Your task to perform on an android device: turn on priority inbox in the gmail app Image 0: 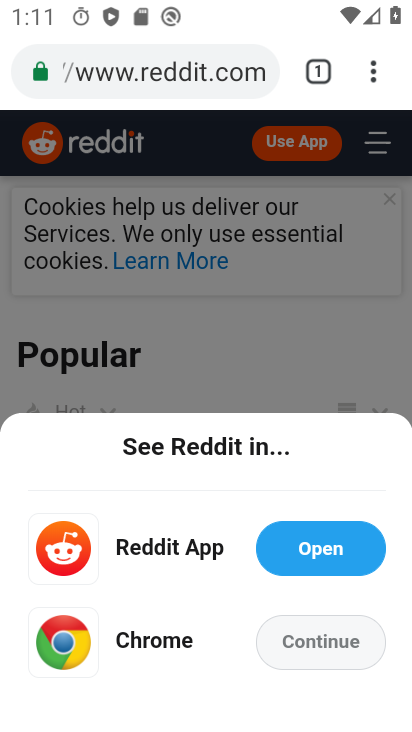
Step 0: press back button
Your task to perform on an android device: turn on priority inbox in the gmail app Image 1: 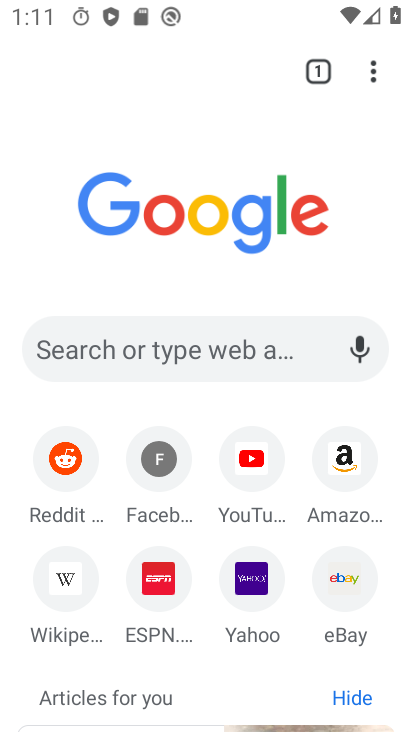
Step 1: press back button
Your task to perform on an android device: turn on priority inbox in the gmail app Image 2: 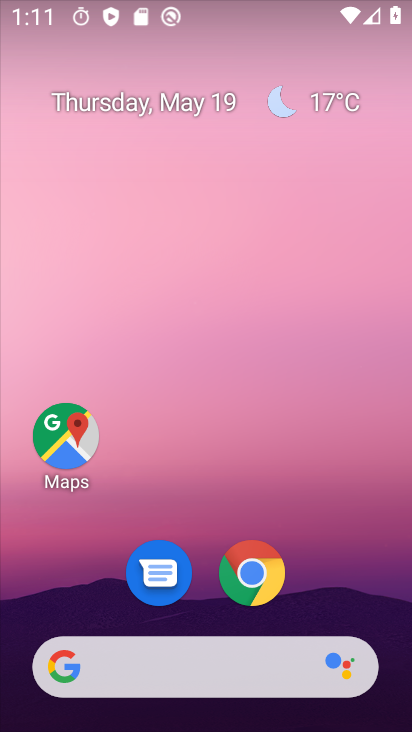
Step 2: drag from (204, 610) to (326, 64)
Your task to perform on an android device: turn on priority inbox in the gmail app Image 3: 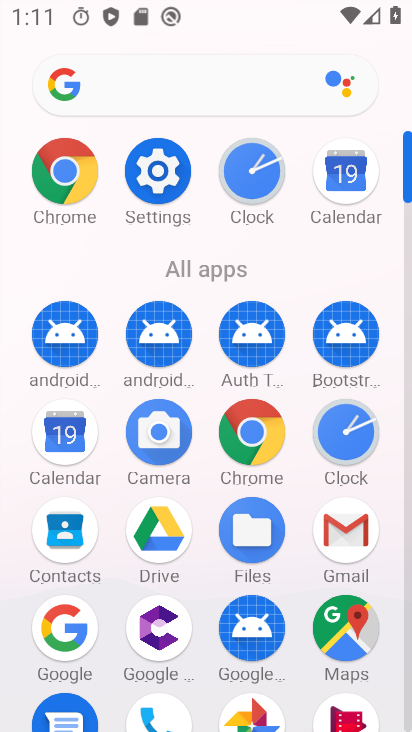
Step 3: click (358, 533)
Your task to perform on an android device: turn on priority inbox in the gmail app Image 4: 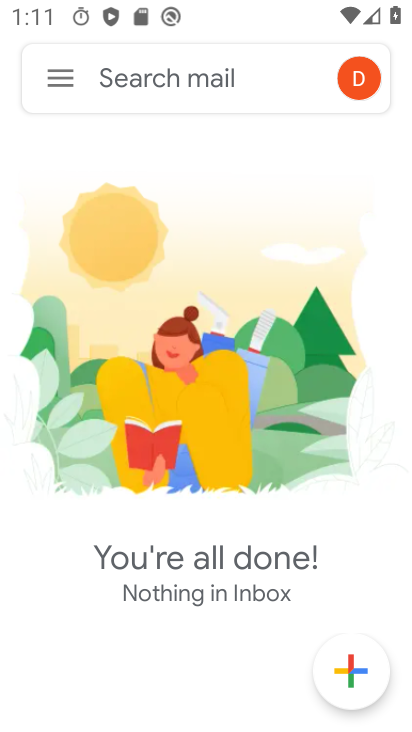
Step 4: click (55, 71)
Your task to perform on an android device: turn on priority inbox in the gmail app Image 5: 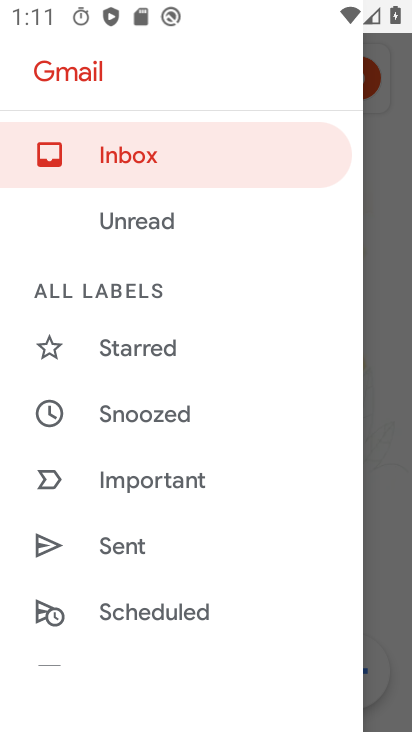
Step 5: drag from (136, 609) to (347, 0)
Your task to perform on an android device: turn on priority inbox in the gmail app Image 6: 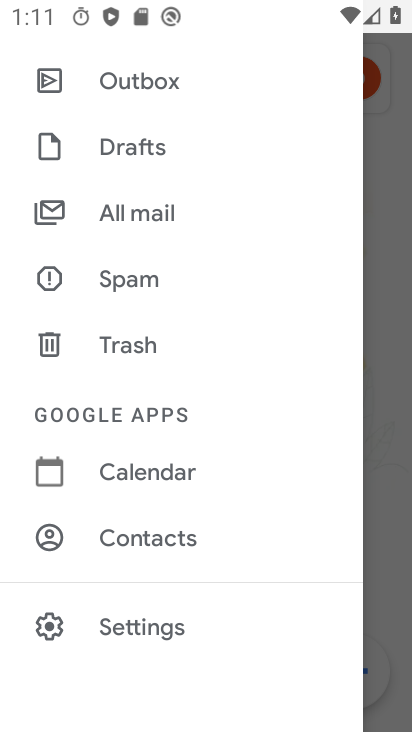
Step 6: click (91, 633)
Your task to perform on an android device: turn on priority inbox in the gmail app Image 7: 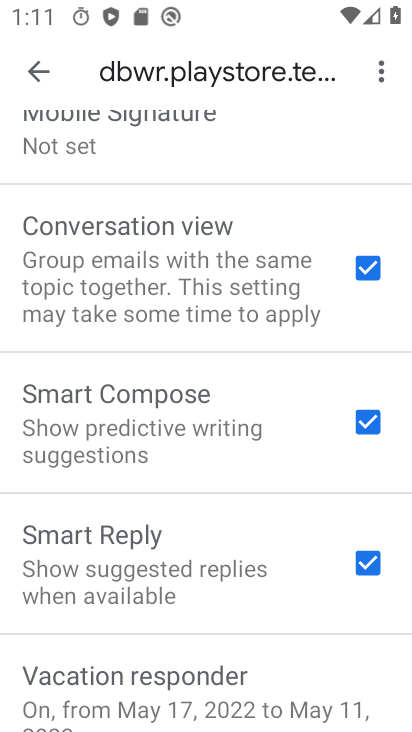
Step 7: drag from (120, 601) to (279, 84)
Your task to perform on an android device: turn on priority inbox in the gmail app Image 8: 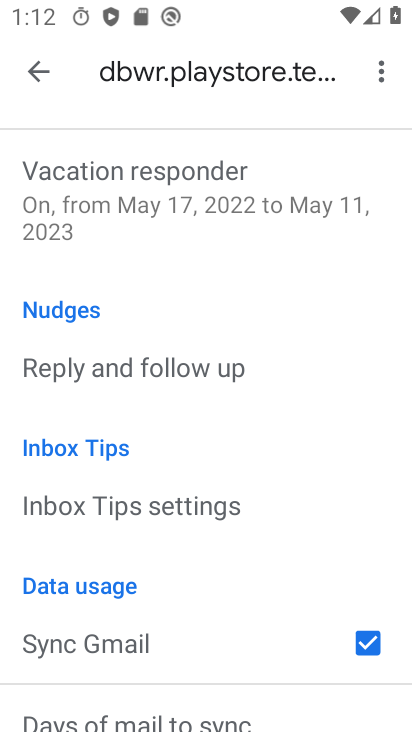
Step 8: drag from (217, 213) to (161, 642)
Your task to perform on an android device: turn on priority inbox in the gmail app Image 9: 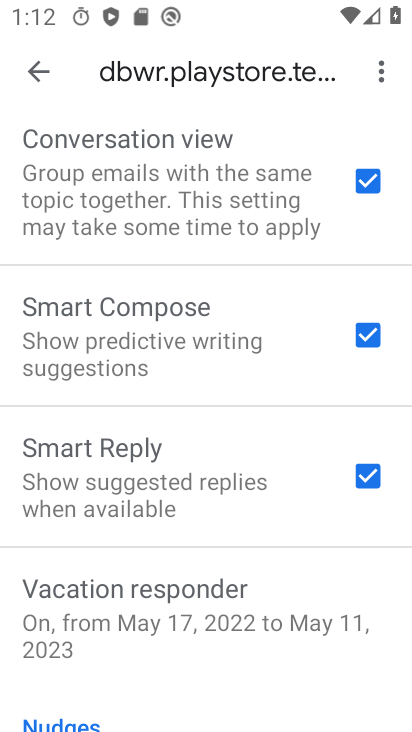
Step 9: drag from (218, 194) to (218, 664)
Your task to perform on an android device: turn on priority inbox in the gmail app Image 10: 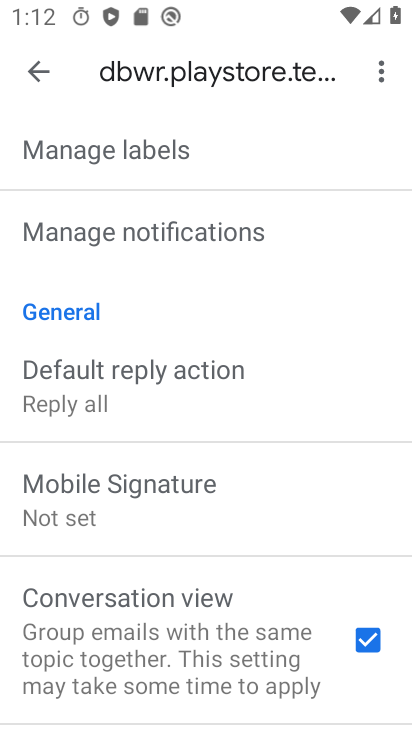
Step 10: drag from (218, 211) to (218, 528)
Your task to perform on an android device: turn on priority inbox in the gmail app Image 11: 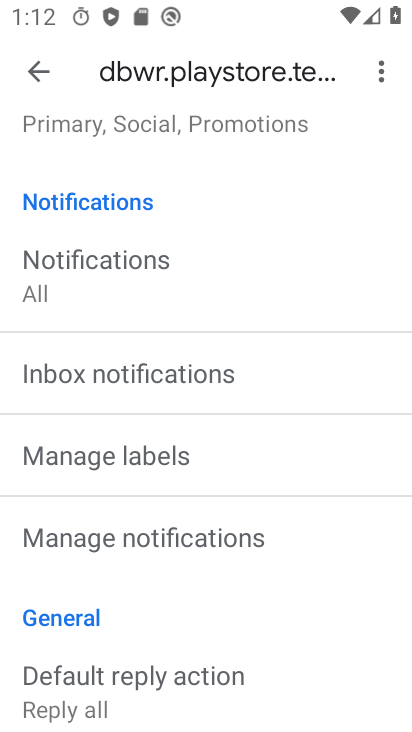
Step 11: drag from (234, 237) to (154, 724)
Your task to perform on an android device: turn on priority inbox in the gmail app Image 12: 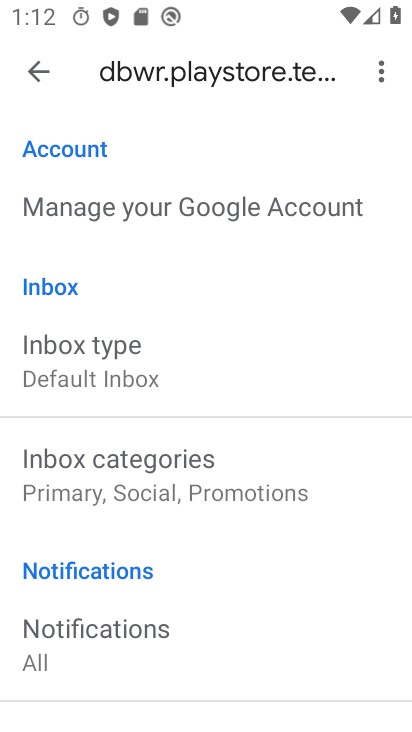
Step 12: click (114, 357)
Your task to perform on an android device: turn on priority inbox in the gmail app Image 13: 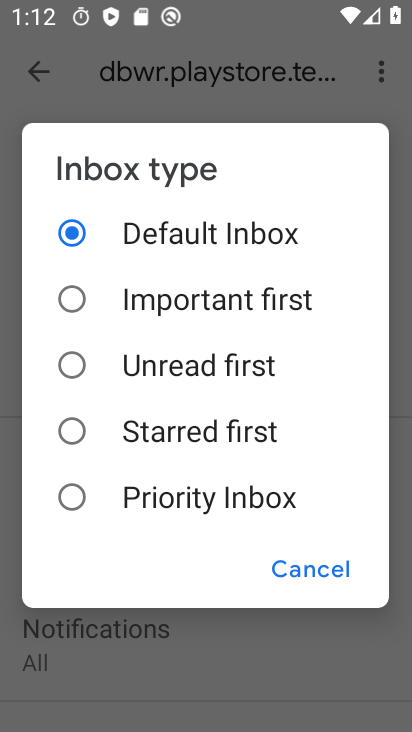
Step 13: click (78, 485)
Your task to perform on an android device: turn on priority inbox in the gmail app Image 14: 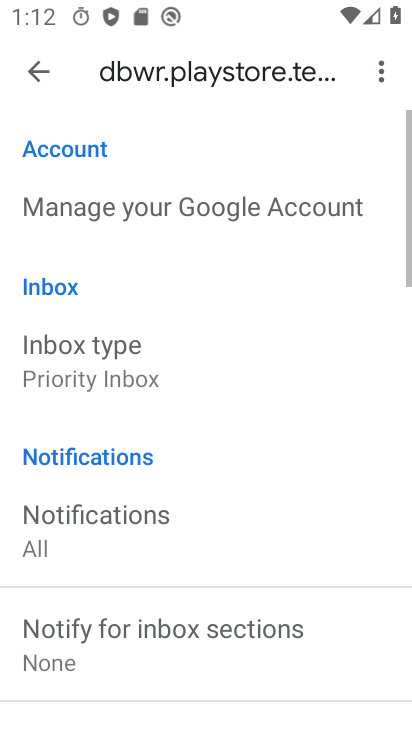
Step 14: task complete